Your task to perform on an android device: Check the weather Image 0: 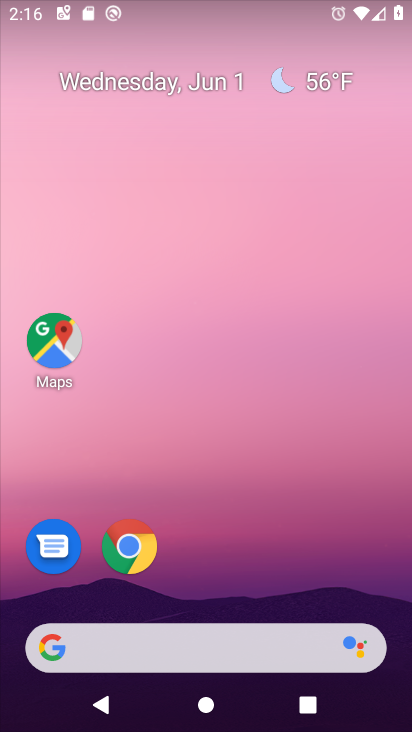
Step 0: click (240, 657)
Your task to perform on an android device: Check the weather Image 1: 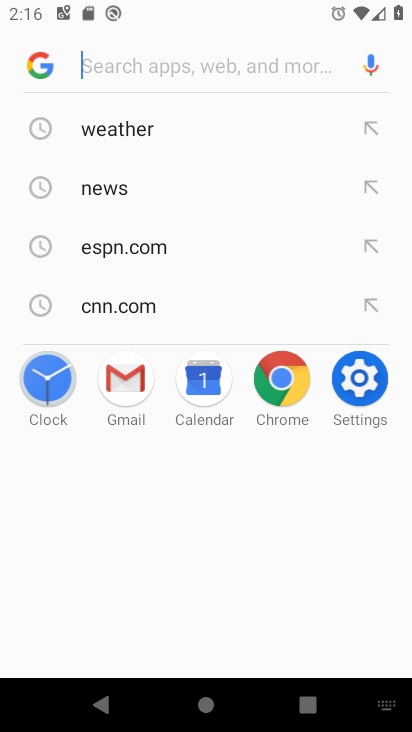
Step 1: click (194, 119)
Your task to perform on an android device: Check the weather Image 2: 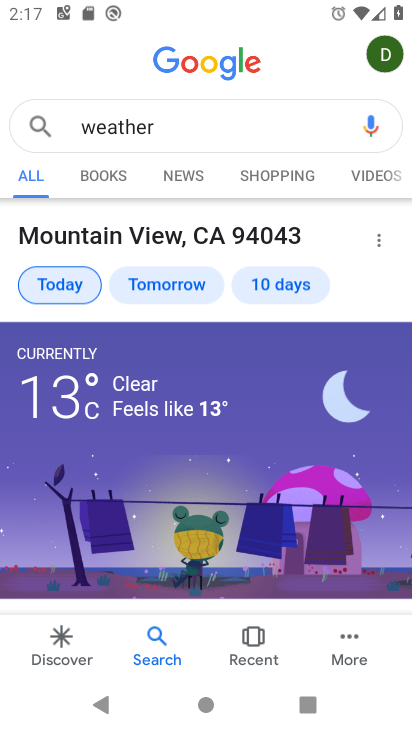
Step 2: task complete